Your task to perform on an android device: open app "eBay: The shopping marketplace" Image 0: 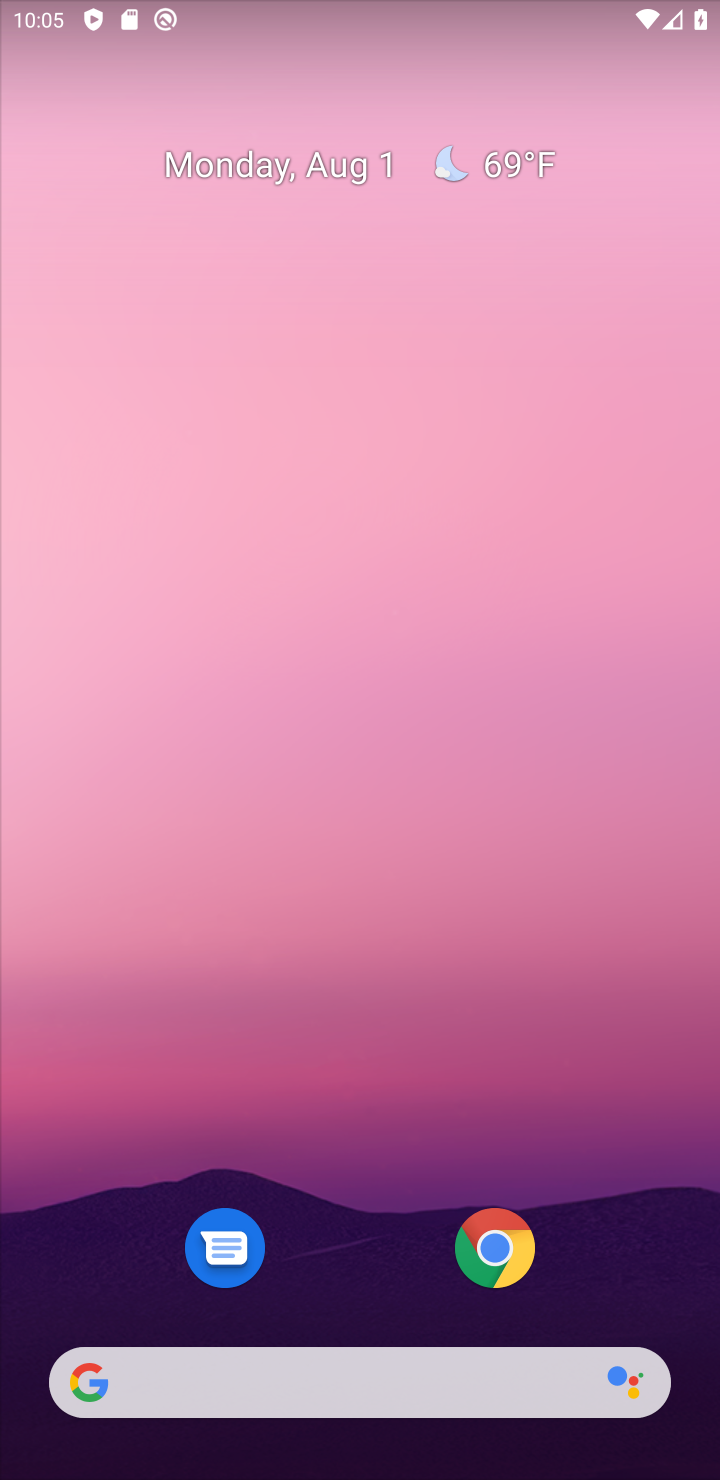
Step 0: drag from (358, 1277) to (427, 35)
Your task to perform on an android device: open app "eBay: The shopping marketplace" Image 1: 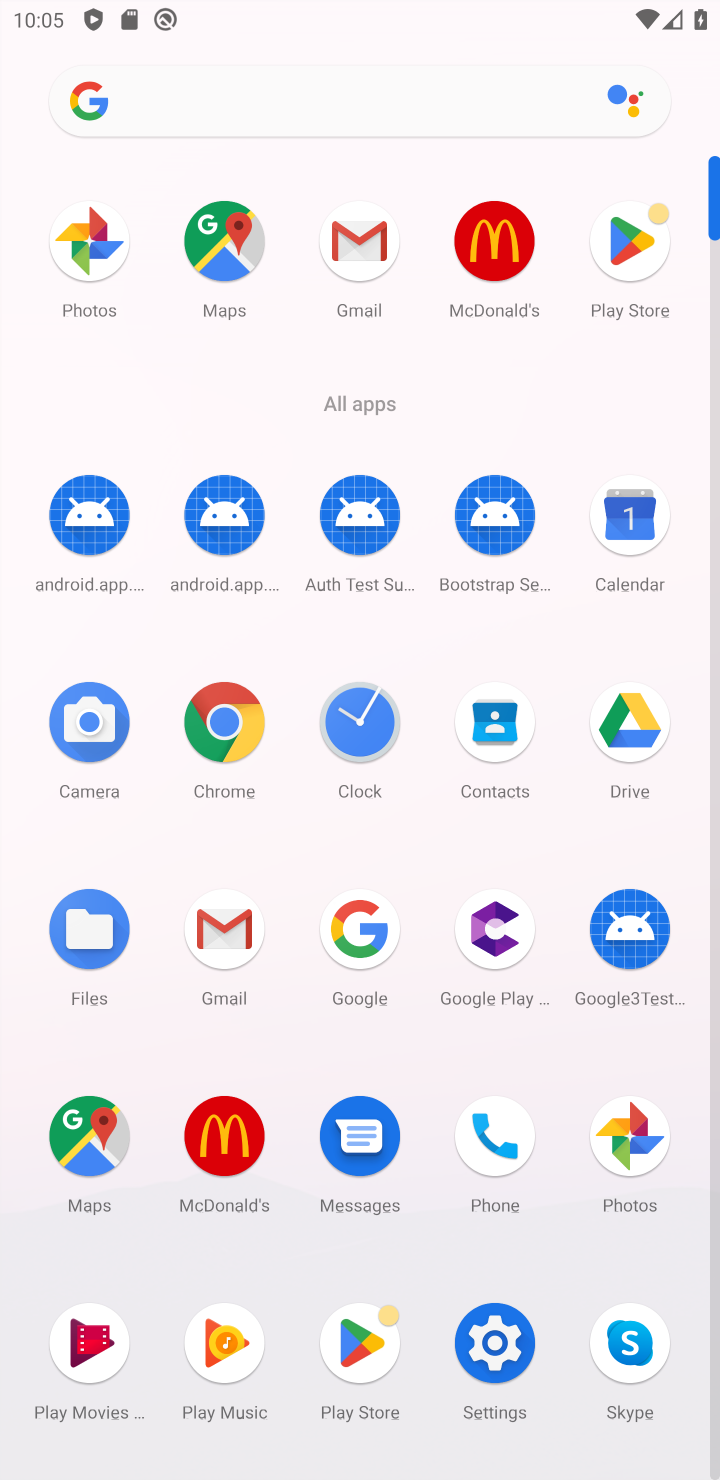
Step 1: click (642, 251)
Your task to perform on an android device: open app "eBay: The shopping marketplace" Image 2: 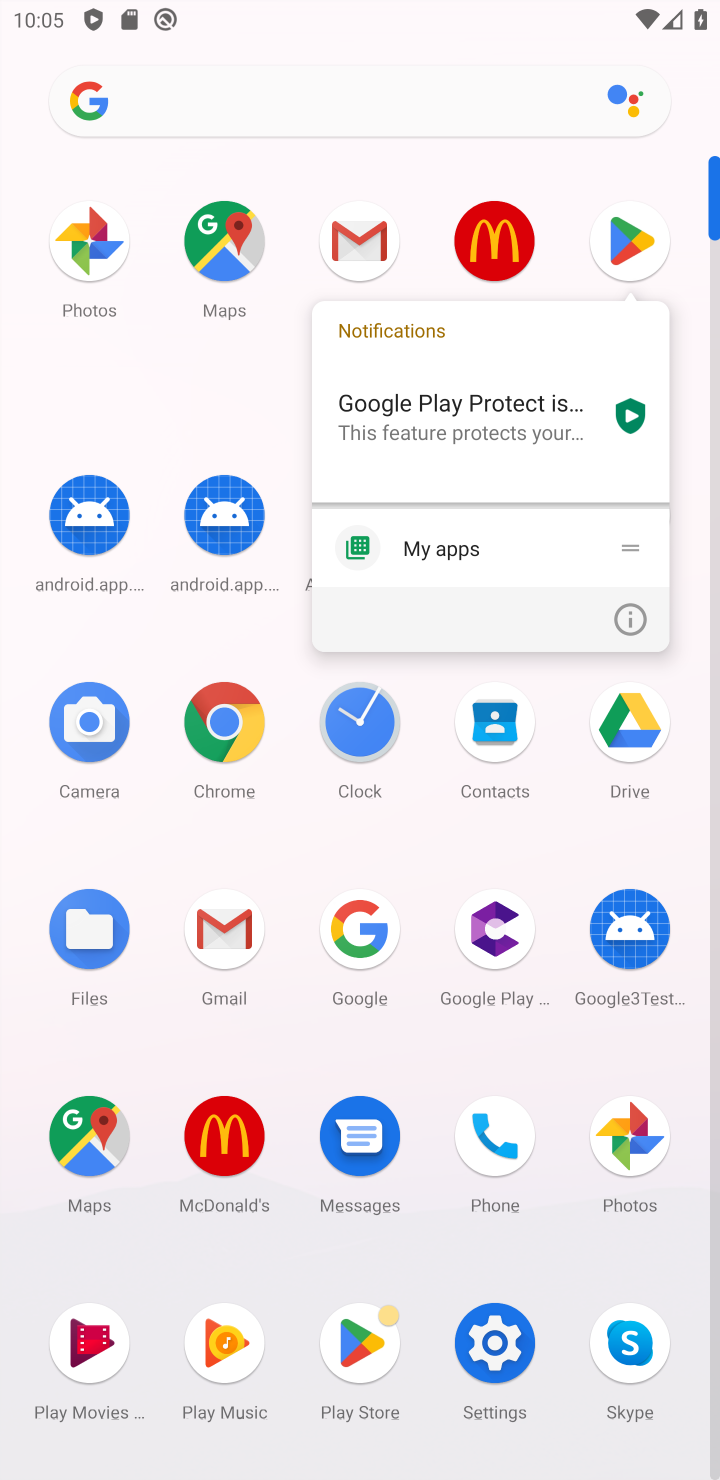
Step 2: click (367, 1324)
Your task to perform on an android device: open app "eBay: The shopping marketplace" Image 3: 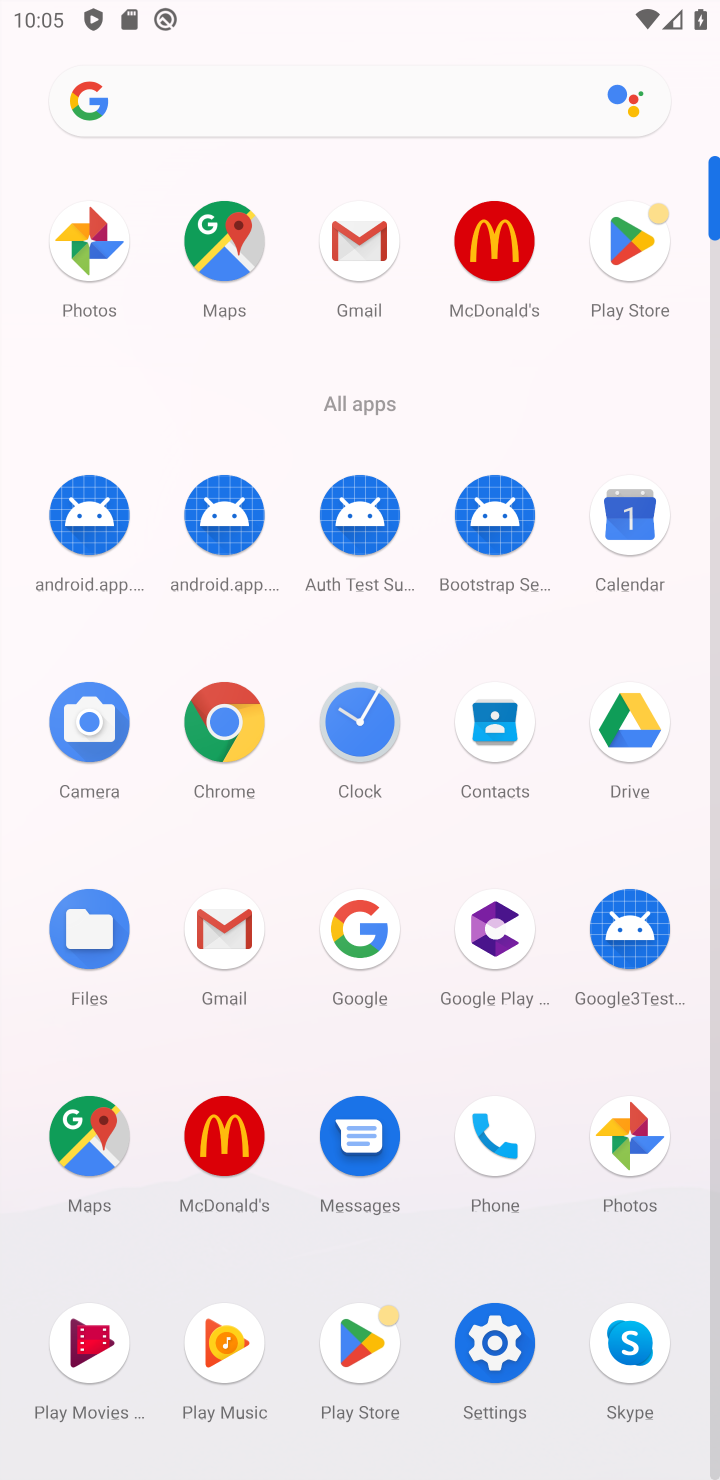
Step 3: click (375, 1342)
Your task to perform on an android device: open app "eBay: The shopping marketplace" Image 4: 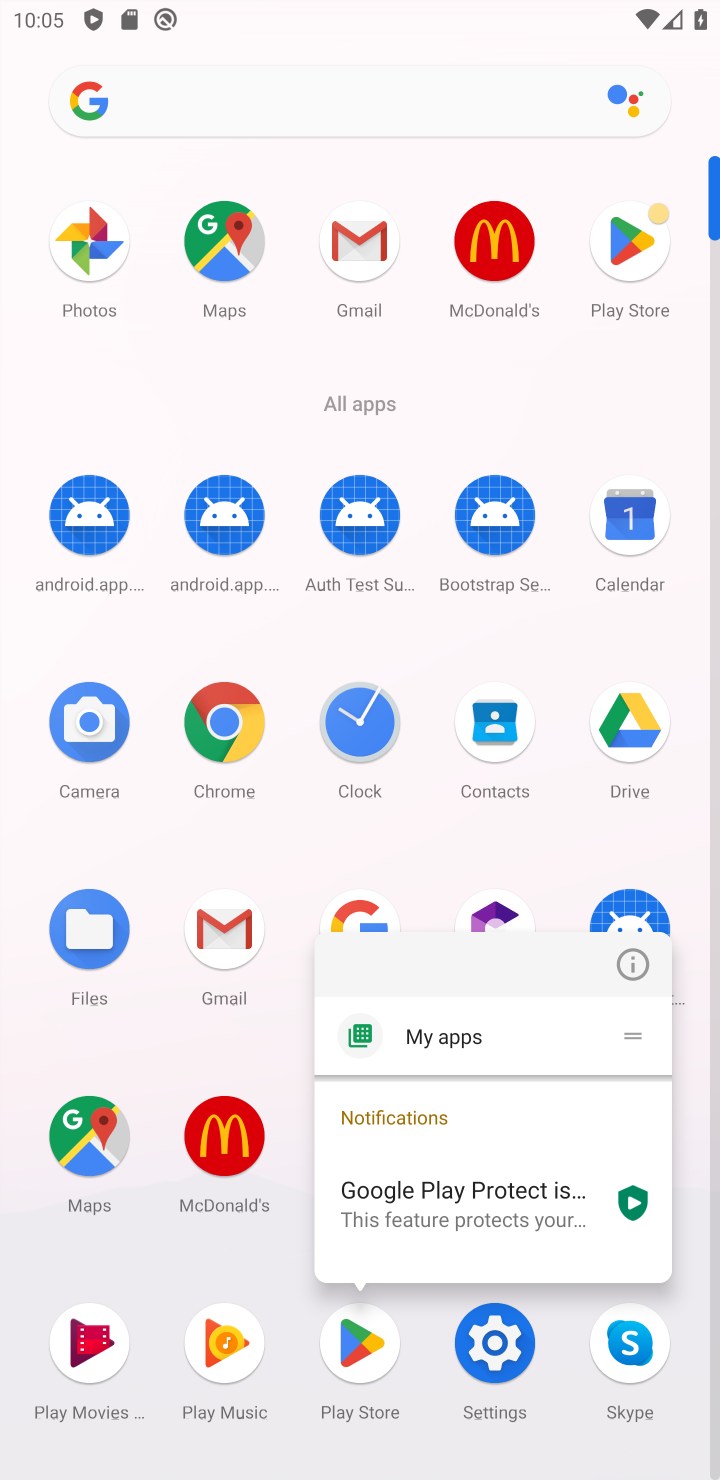
Step 4: click (350, 1336)
Your task to perform on an android device: open app "eBay: The shopping marketplace" Image 5: 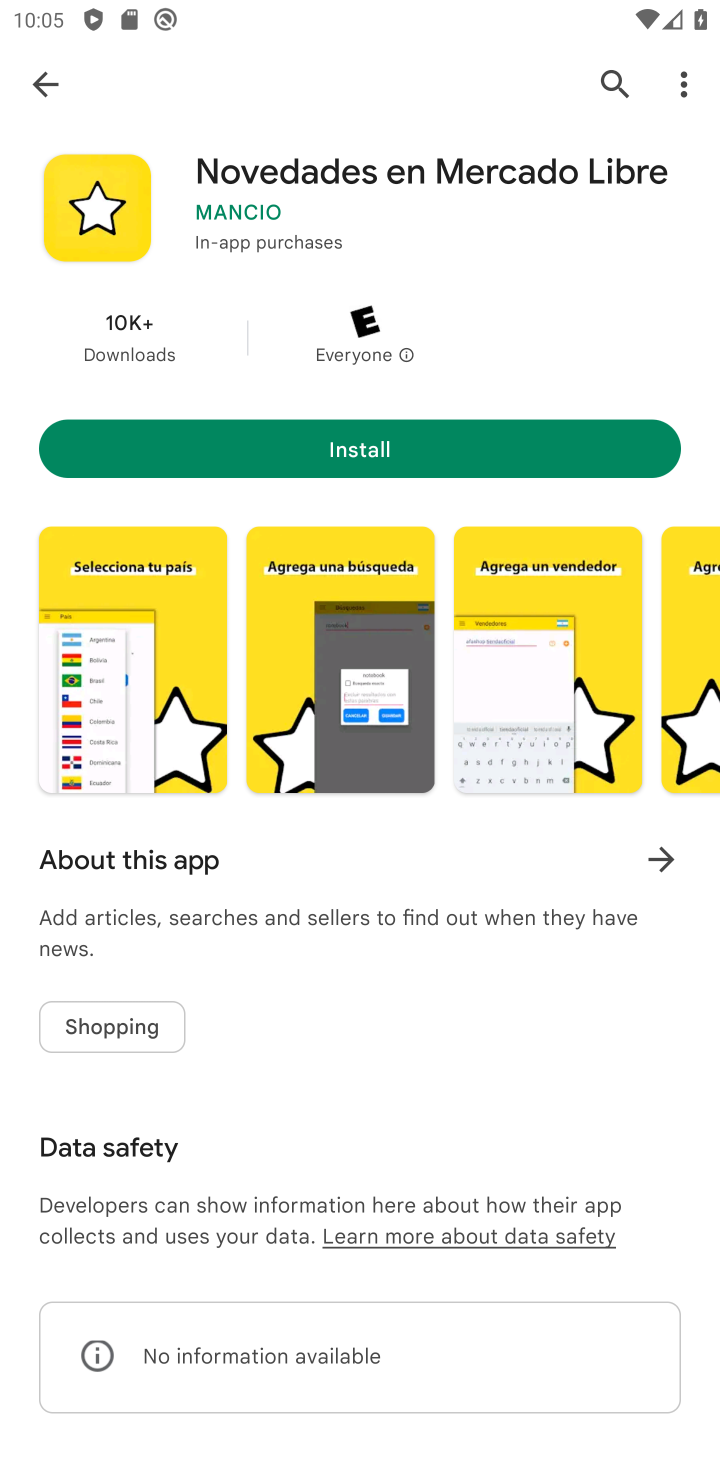
Step 5: click (606, 83)
Your task to perform on an android device: open app "eBay: The shopping marketplace" Image 6: 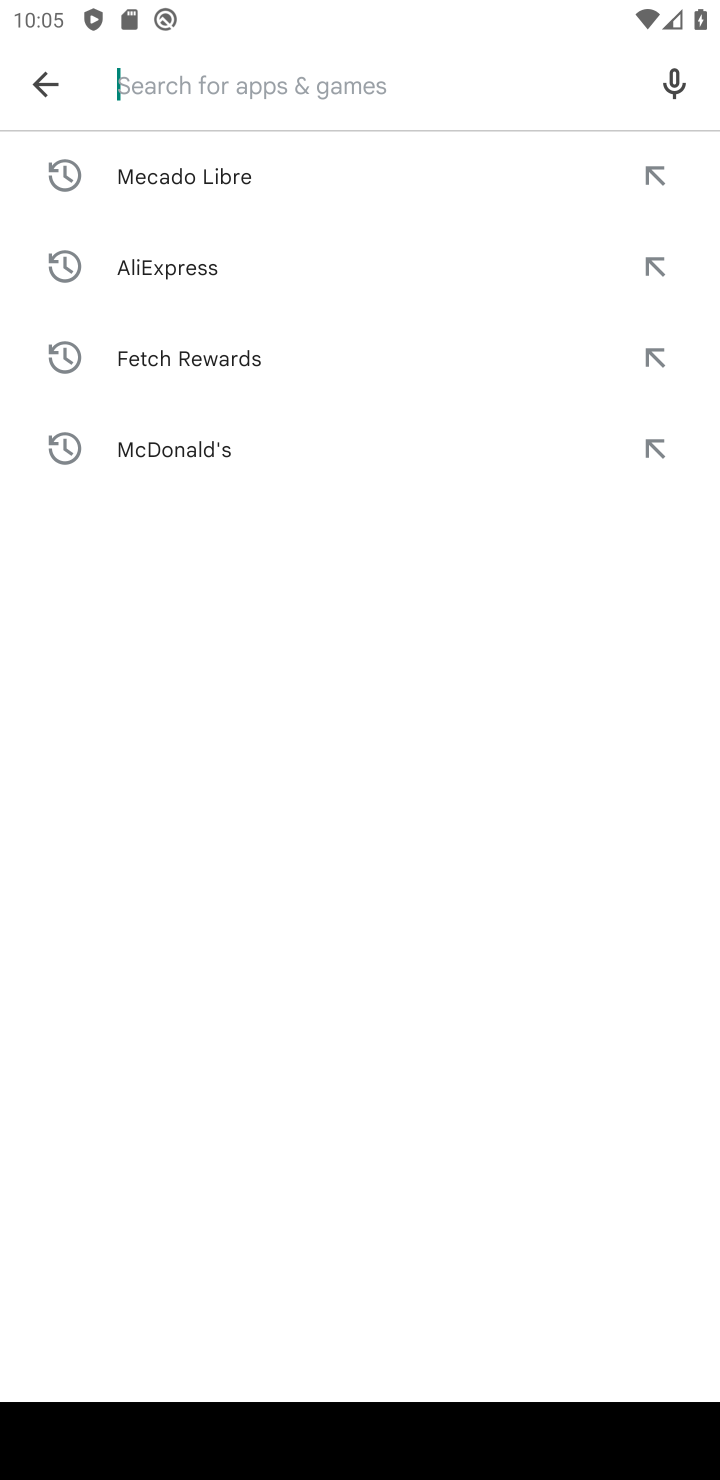
Step 6: type "eBay: The shopping marketplace"
Your task to perform on an android device: open app "eBay: The shopping marketplace" Image 7: 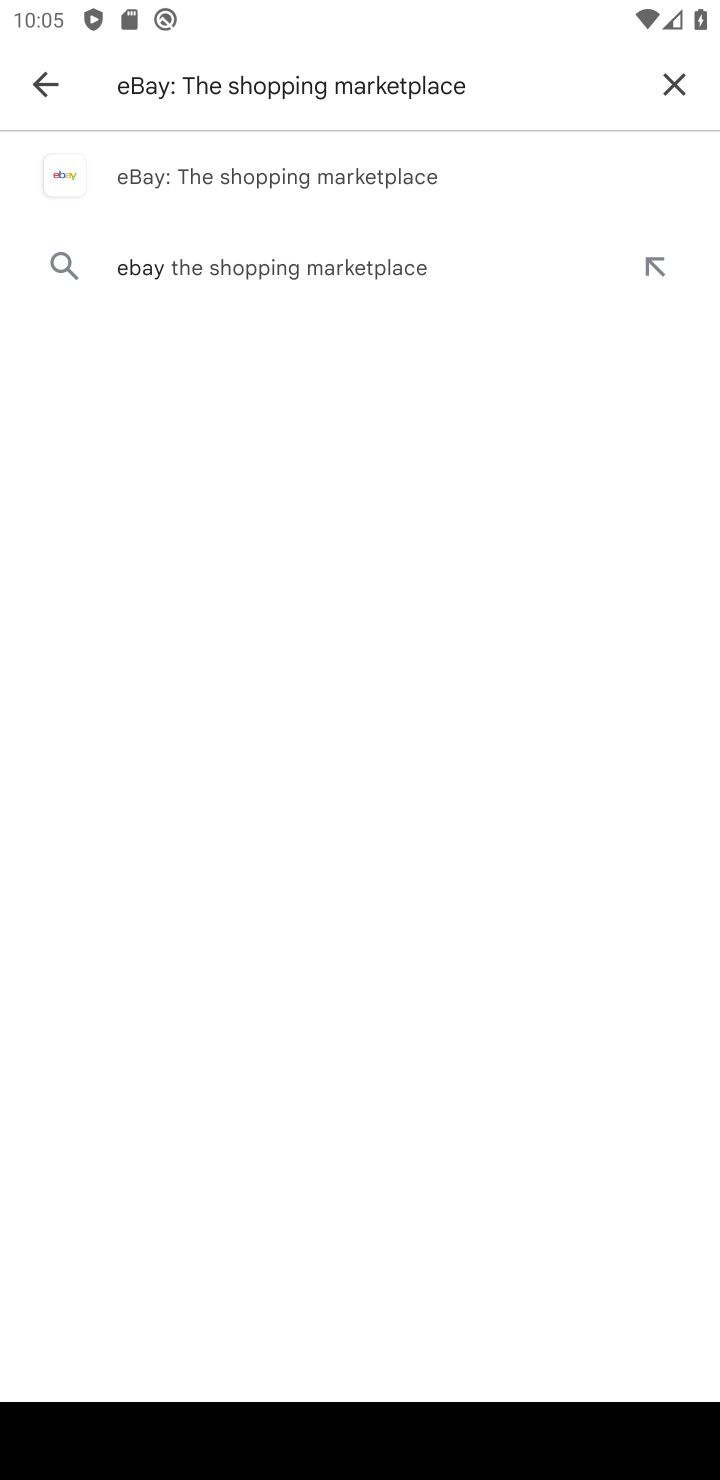
Step 7: press enter
Your task to perform on an android device: open app "eBay: The shopping marketplace" Image 8: 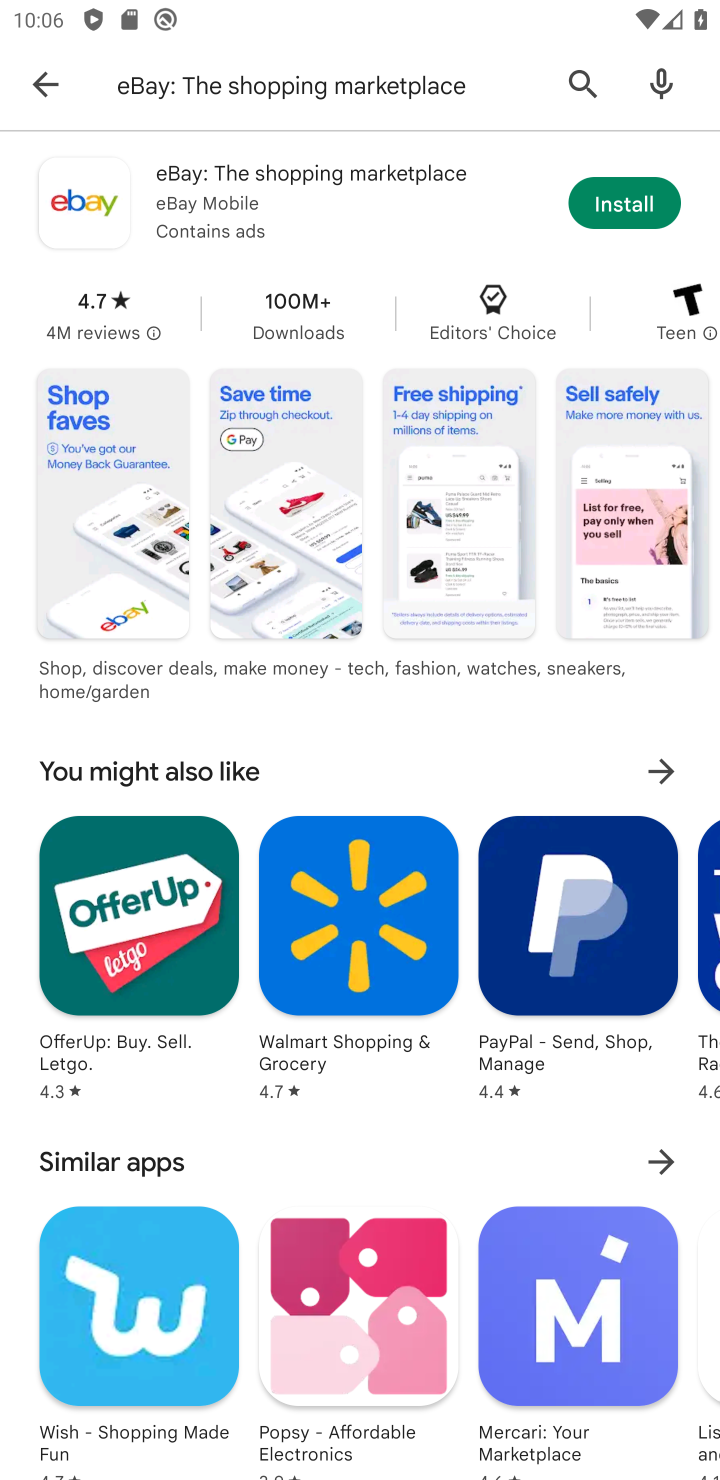
Step 8: click (288, 201)
Your task to perform on an android device: open app "eBay: The shopping marketplace" Image 9: 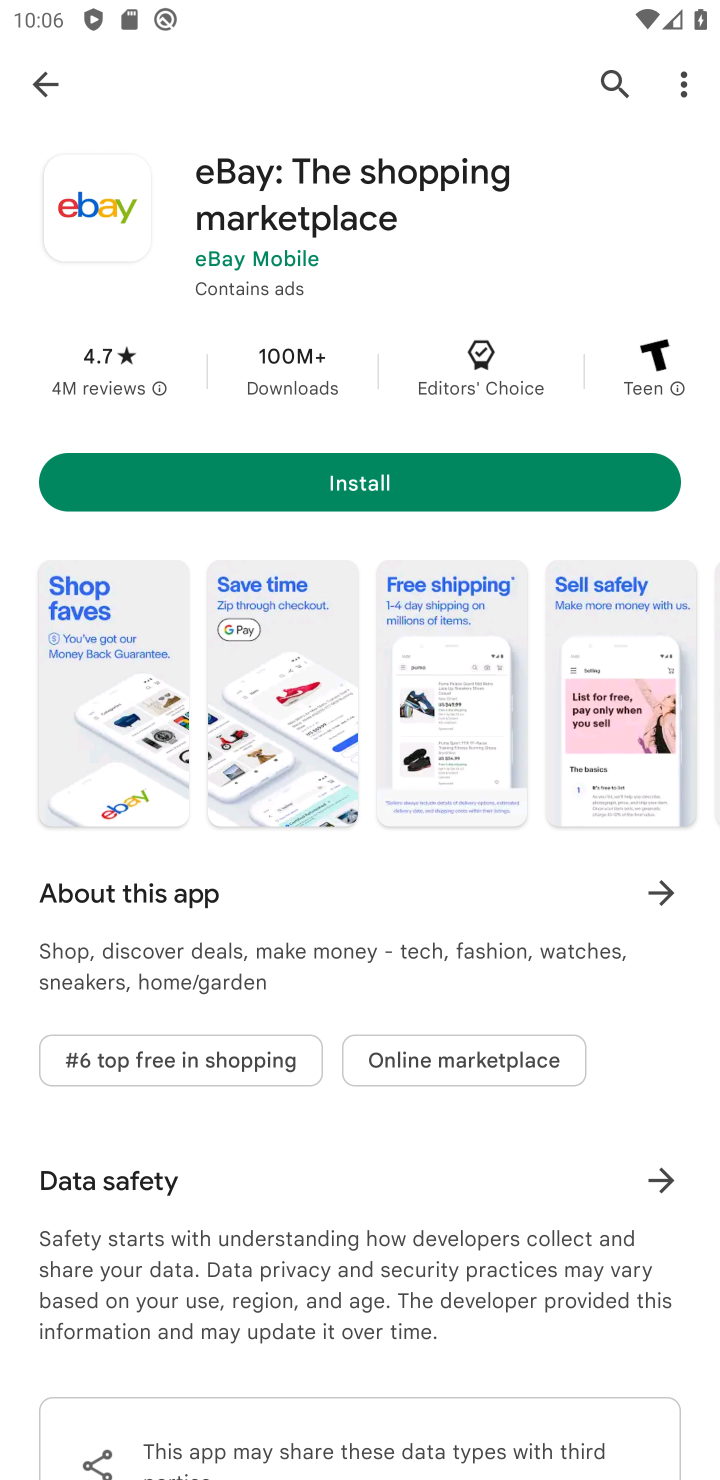
Step 9: task complete